Your task to perform on an android device: install app "The Home Depot" Image 0: 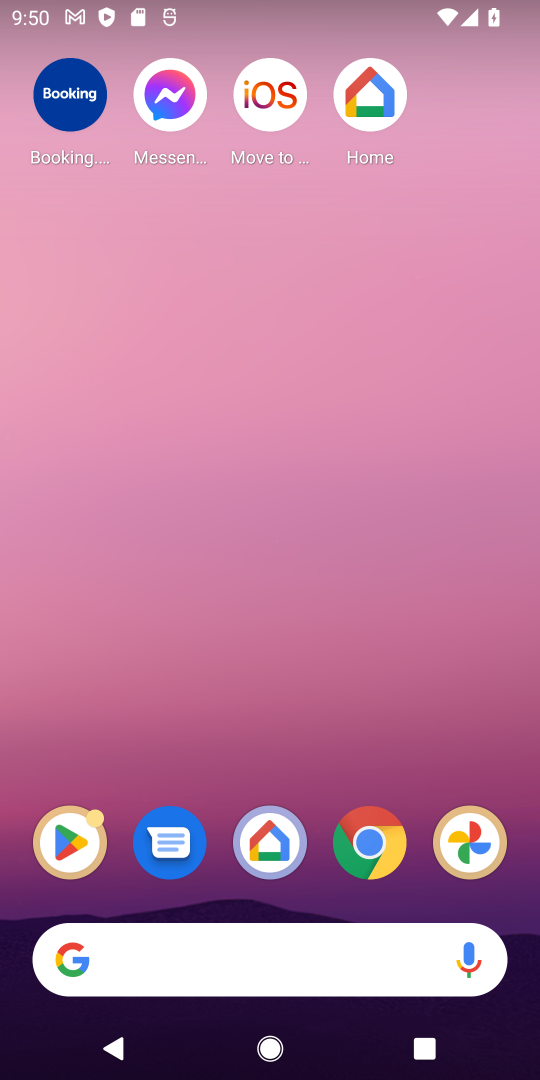
Step 0: click (272, 838)
Your task to perform on an android device: install app "The Home Depot" Image 1: 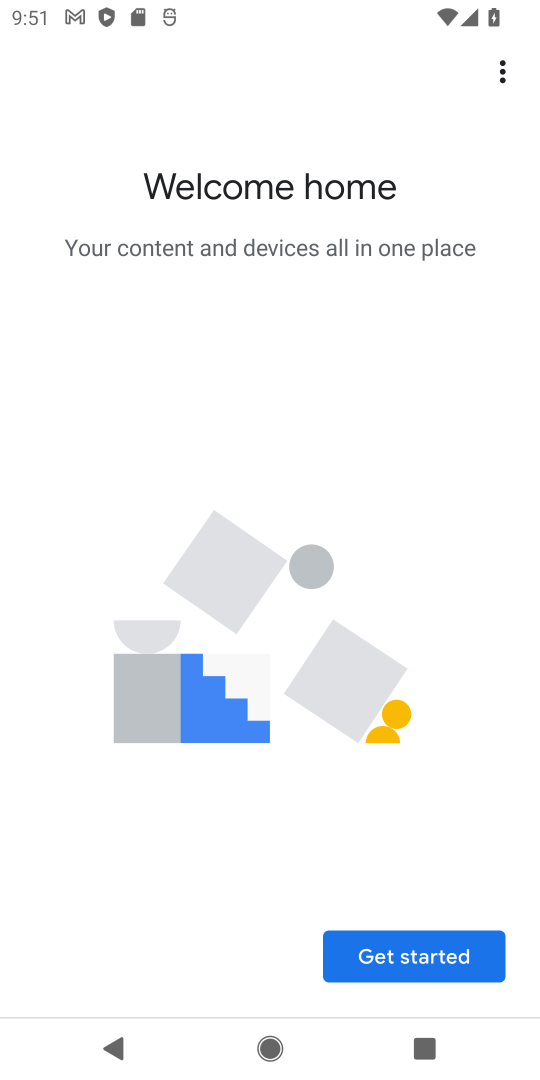
Step 1: click (407, 953)
Your task to perform on an android device: install app "The Home Depot" Image 2: 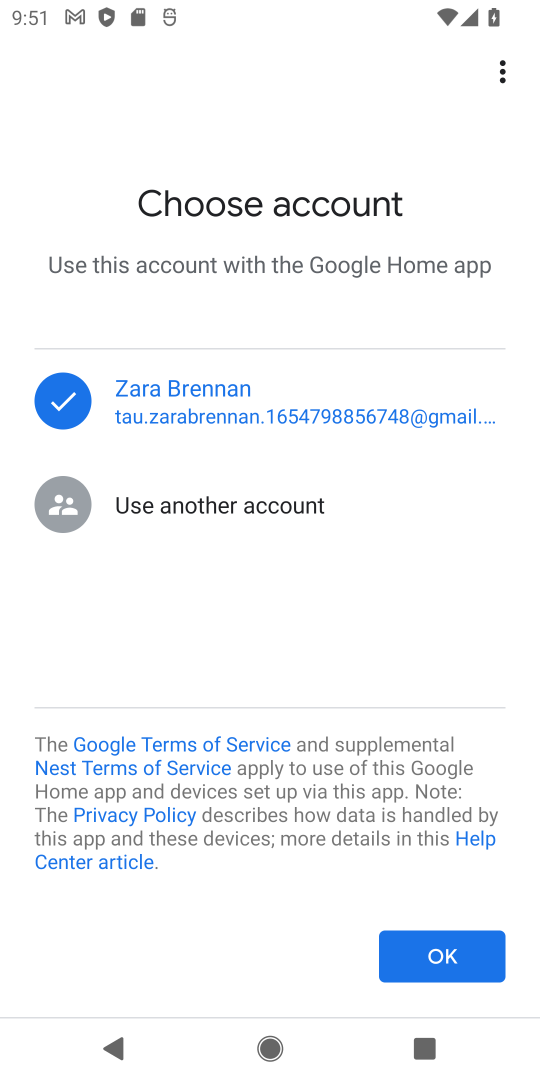
Step 2: press back button
Your task to perform on an android device: install app "The Home Depot" Image 3: 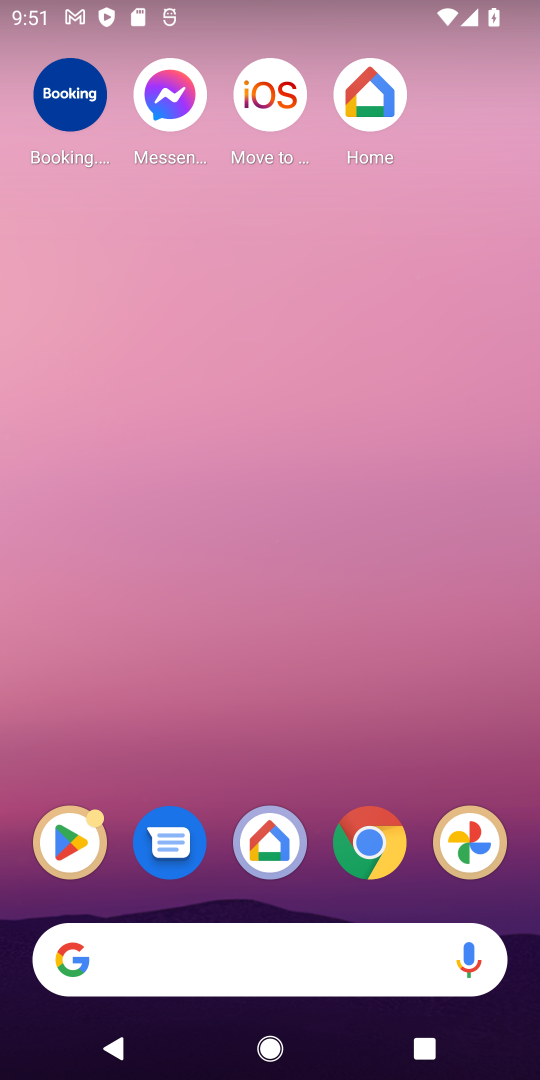
Step 3: click (42, 816)
Your task to perform on an android device: install app "The Home Depot" Image 4: 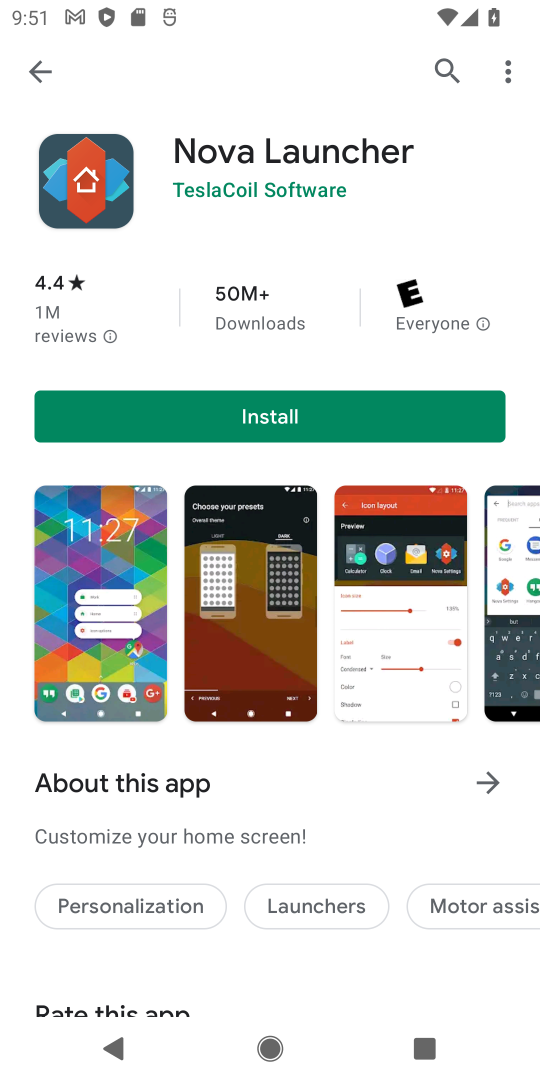
Step 4: click (445, 30)
Your task to perform on an android device: install app "The Home Depot" Image 5: 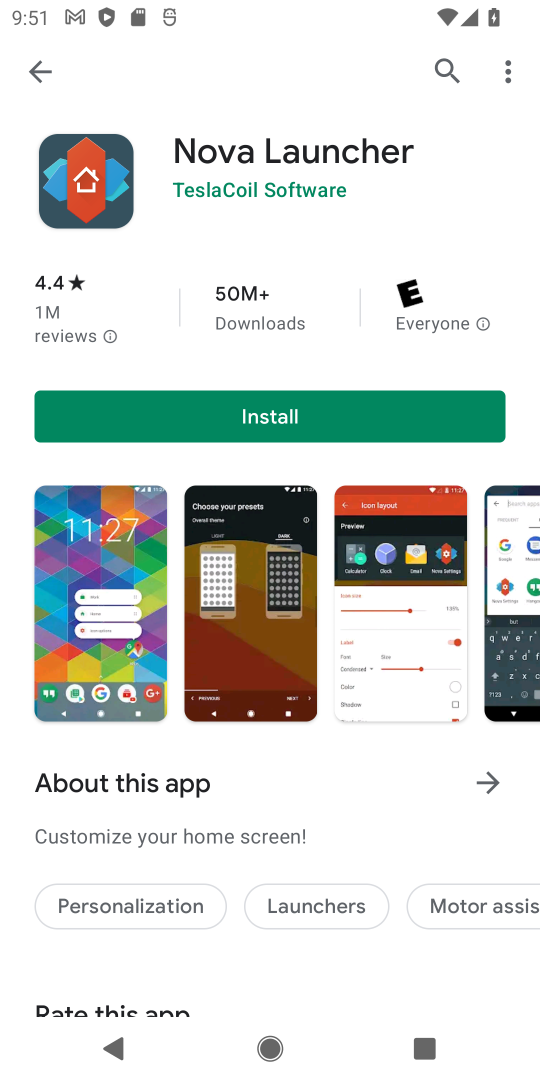
Step 5: click (434, 78)
Your task to perform on an android device: install app "The Home Depot" Image 6: 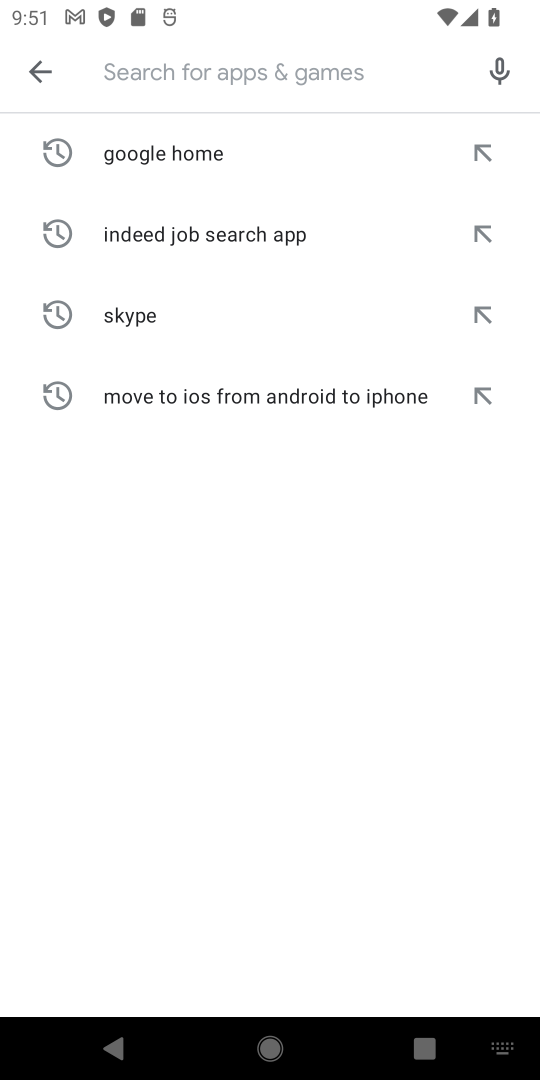
Step 6: type "The Home Depot"
Your task to perform on an android device: install app "The Home Depot" Image 7: 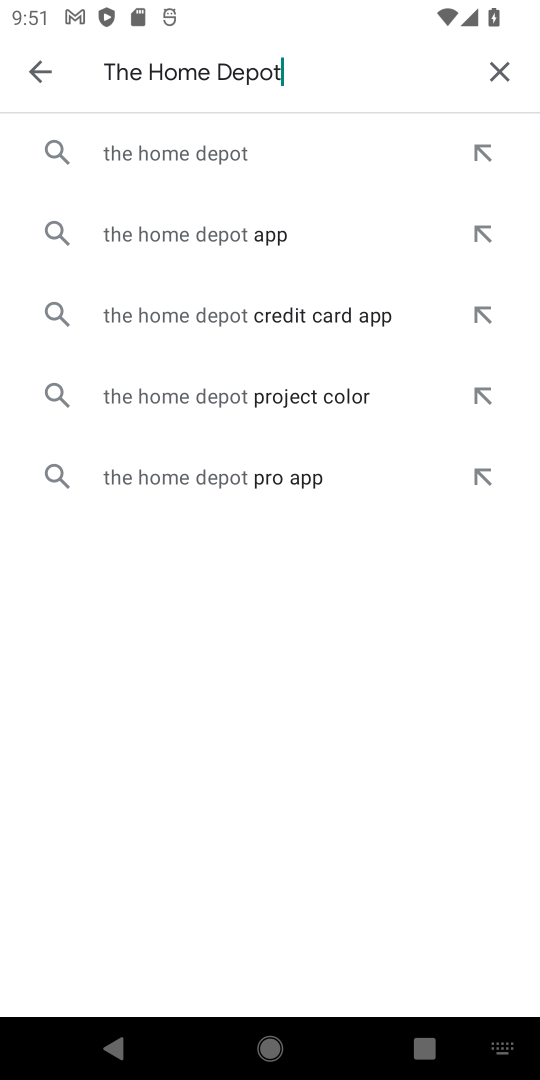
Step 7: click (229, 152)
Your task to perform on an android device: install app "The Home Depot" Image 8: 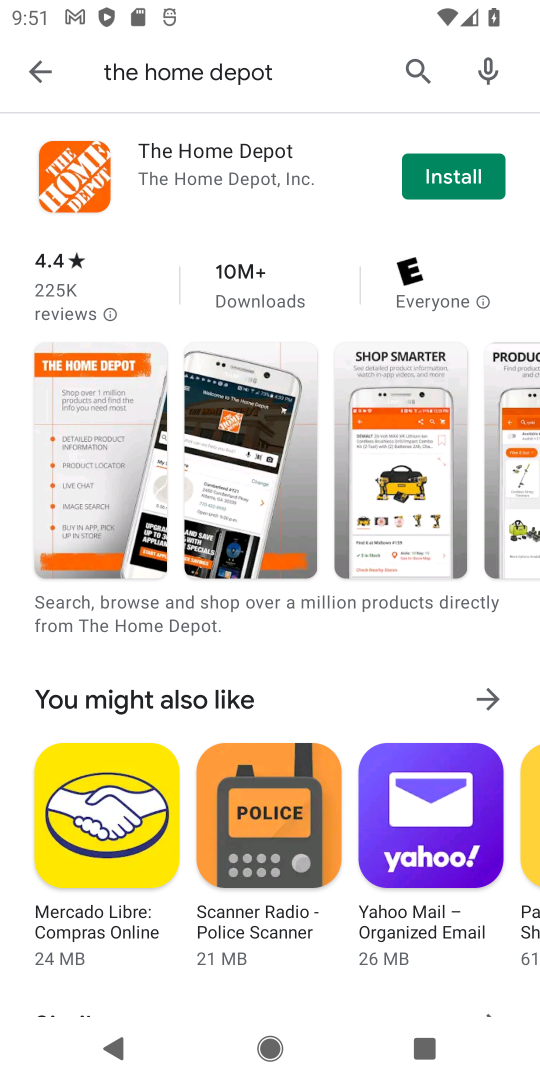
Step 8: click (435, 183)
Your task to perform on an android device: install app "The Home Depot" Image 9: 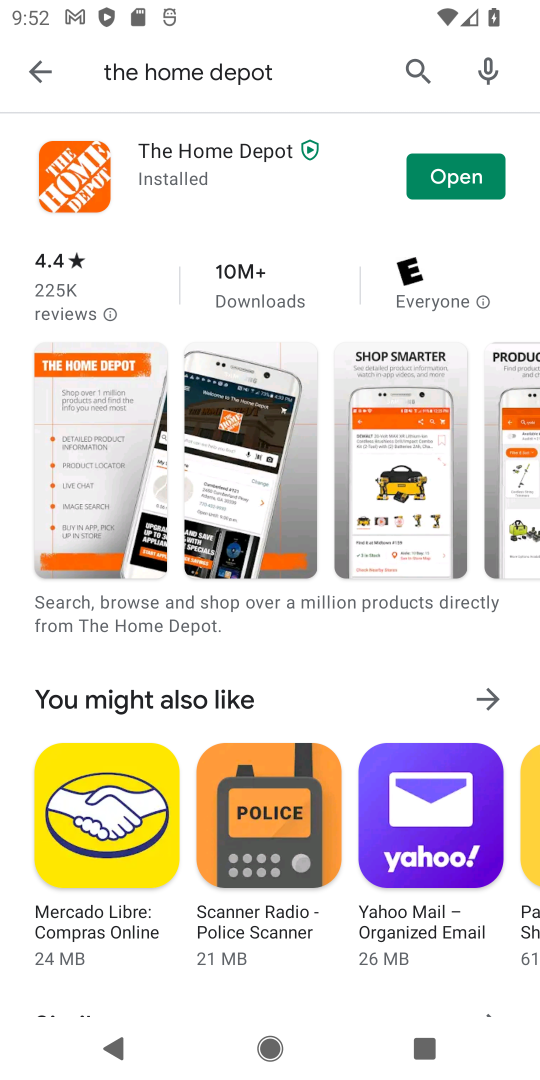
Step 9: click (462, 189)
Your task to perform on an android device: install app "The Home Depot" Image 10: 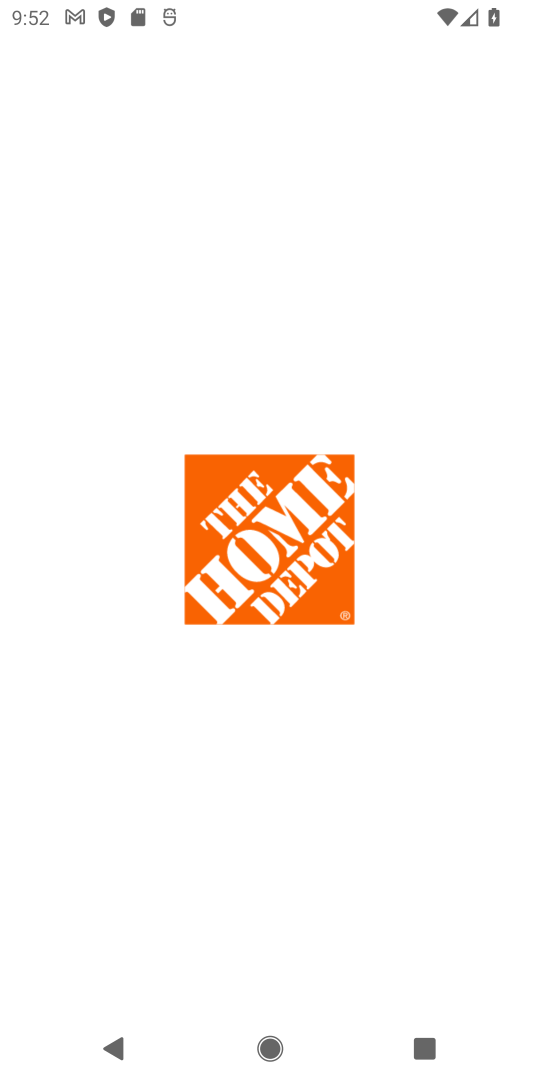
Step 10: task complete